Your task to perform on an android device: allow notifications from all sites in the chrome app Image 0: 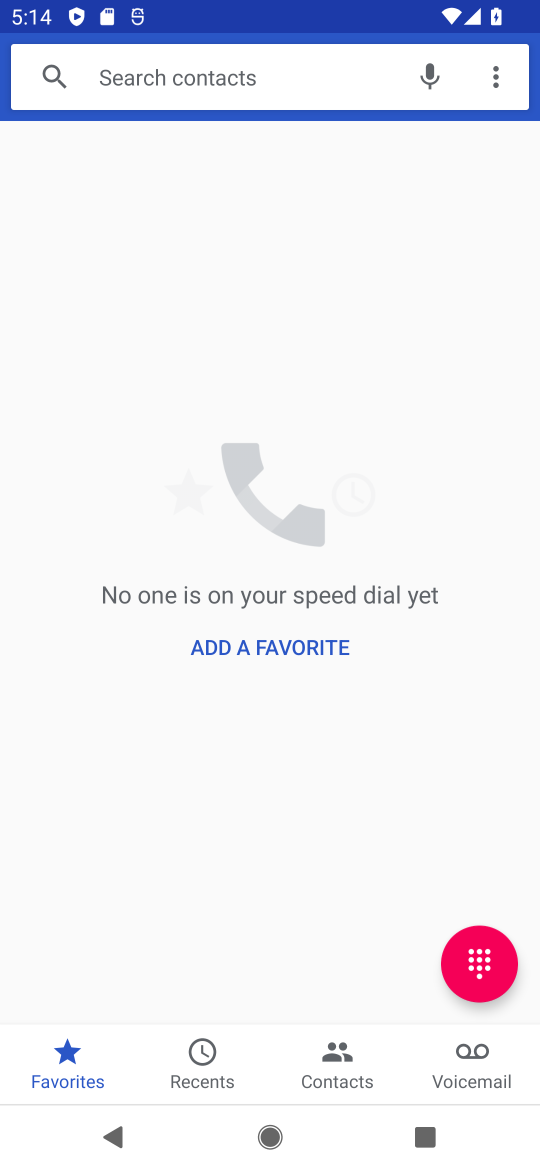
Step 0: press home button
Your task to perform on an android device: allow notifications from all sites in the chrome app Image 1: 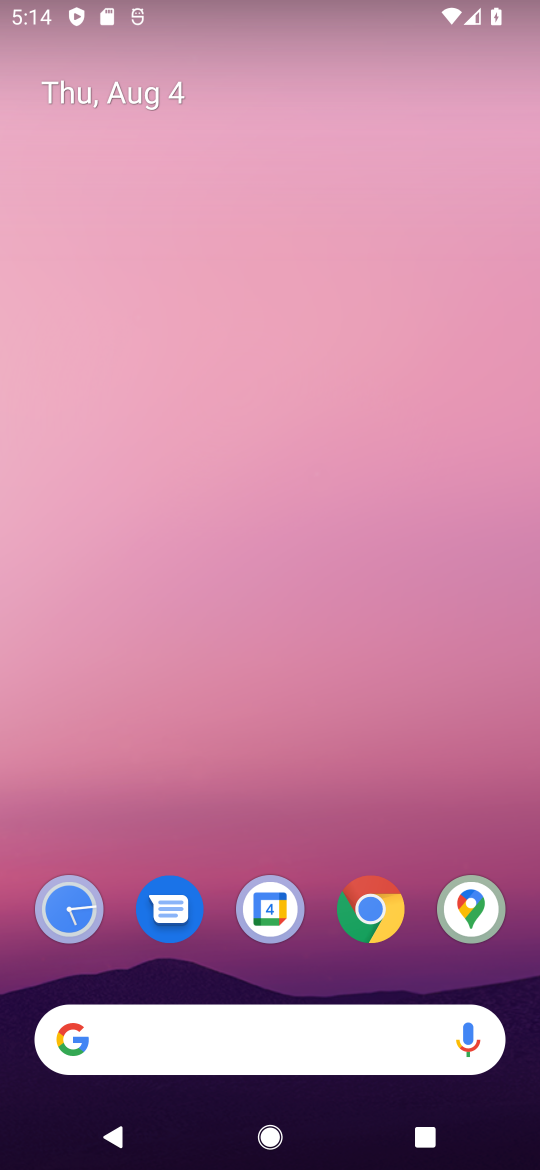
Step 1: click (367, 912)
Your task to perform on an android device: allow notifications from all sites in the chrome app Image 2: 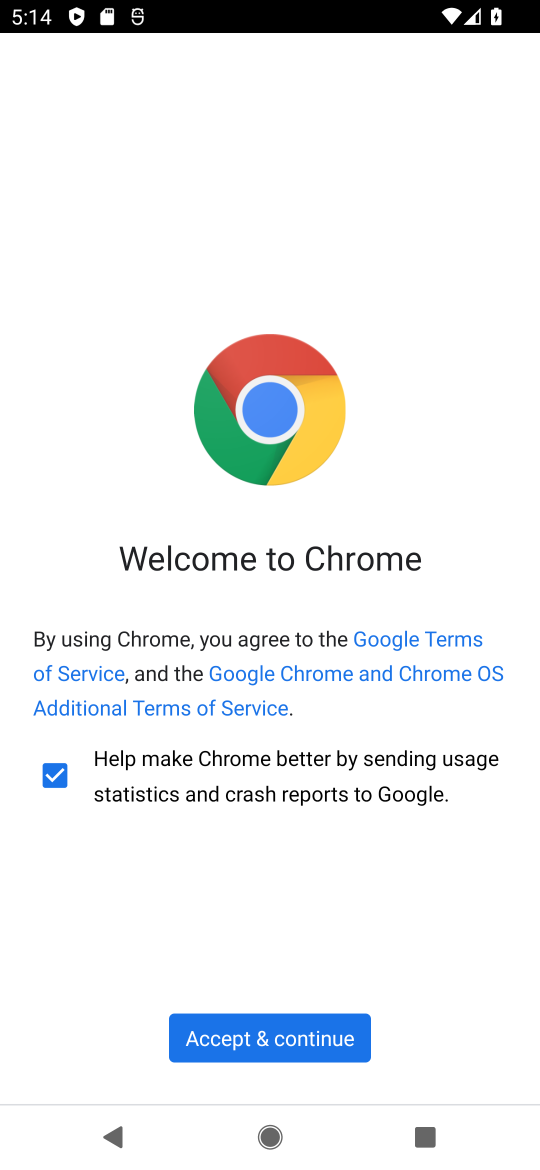
Step 2: click (285, 1034)
Your task to perform on an android device: allow notifications from all sites in the chrome app Image 3: 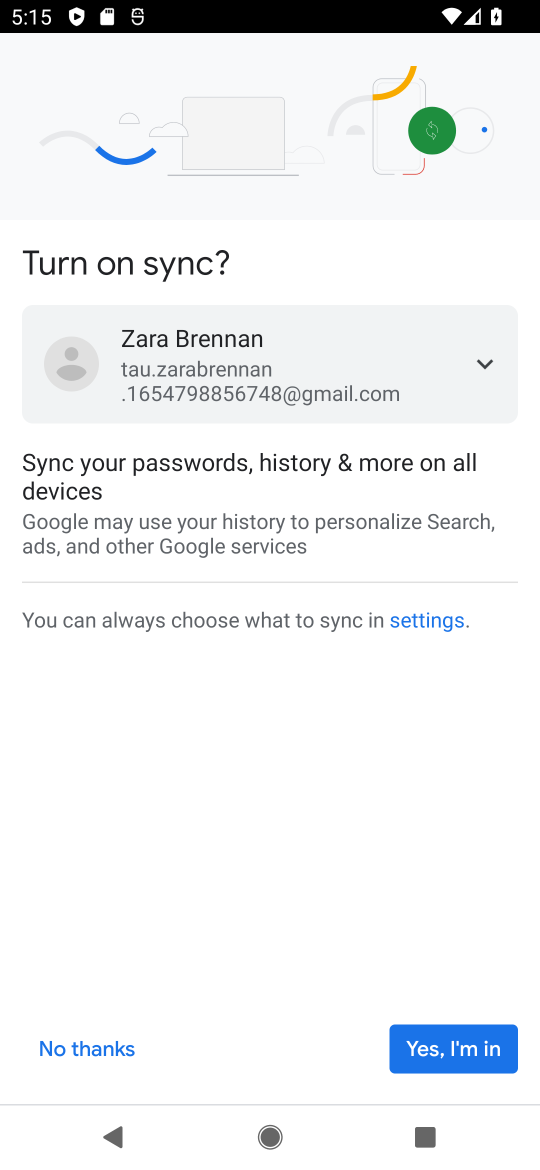
Step 3: click (442, 1044)
Your task to perform on an android device: allow notifications from all sites in the chrome app Image 4: 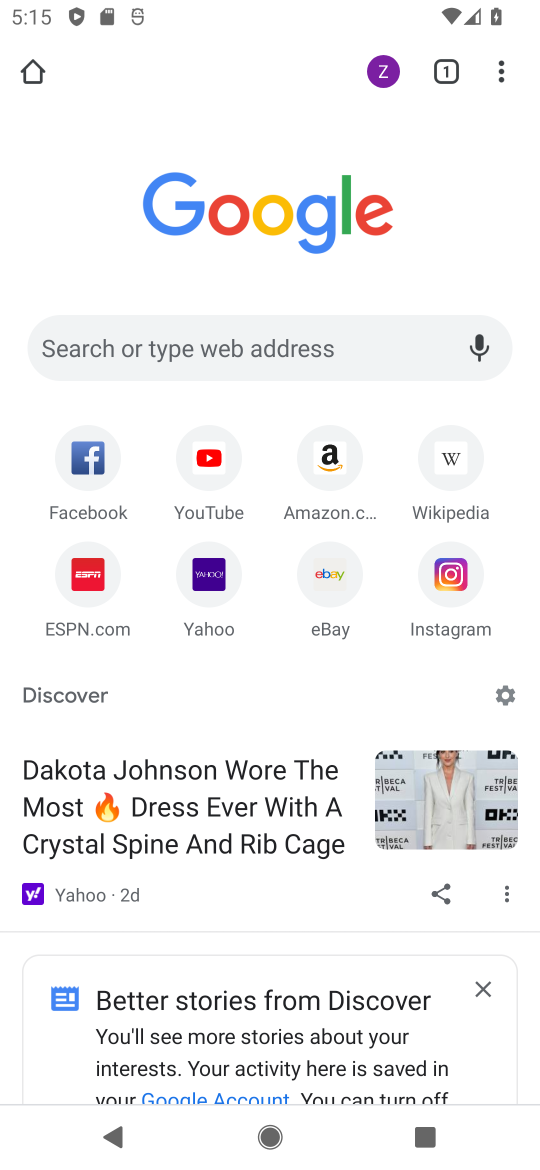
Step 4: click (499, 78)
Your task to perform on an android device: allow notifications from all sites in the chrome app Image 5: 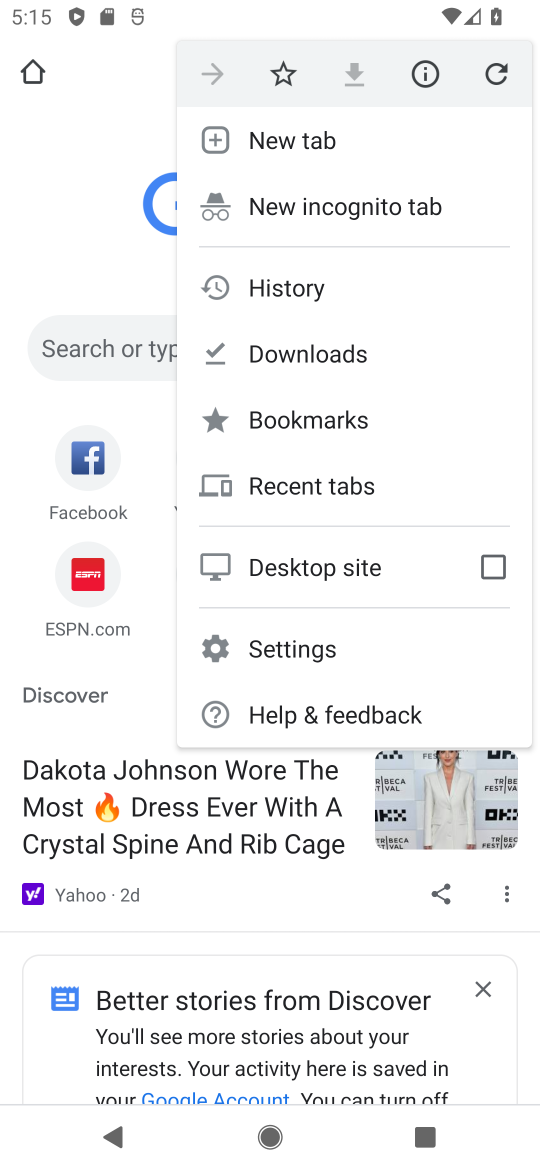
Step 5: click (272, 654)
Your task to perform on an android device: allow notifications from all sites in the chrome app Image 6: 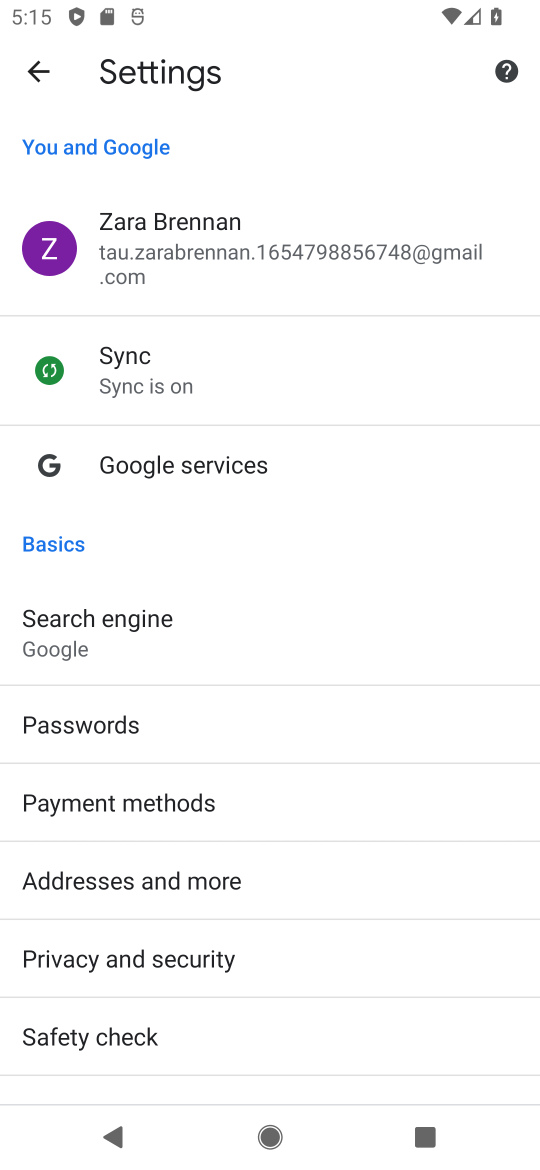
Step 6: drag from (236, 713) to (253, 558)
Your task to perform on an android device: allow notifications from all sites in the chrome app Image 7: 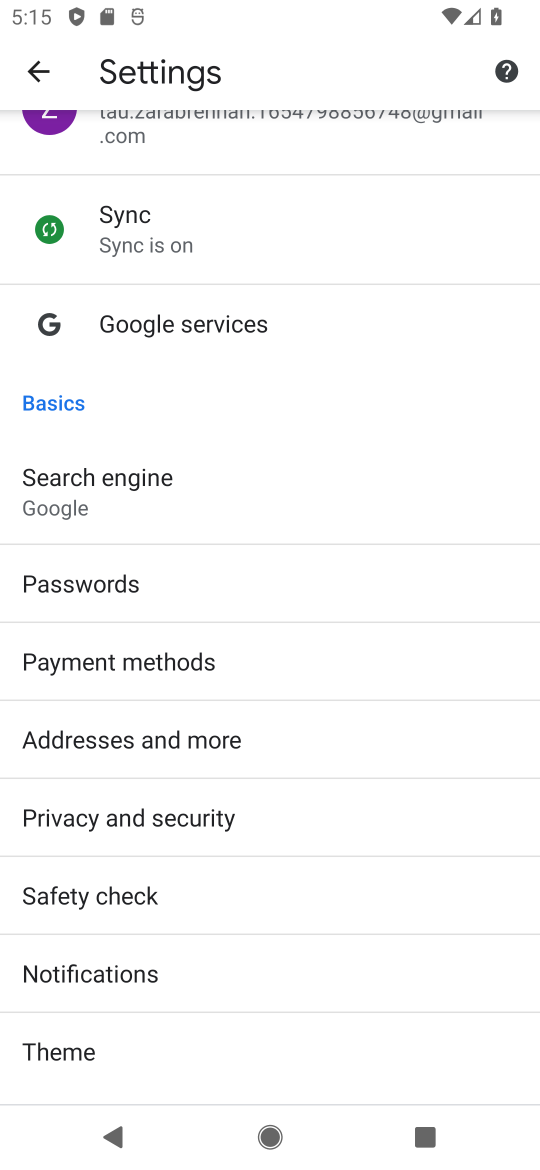
Step 7: drag from (198, 721) to (230, 564)
Your task to perform on an android device: allow notifications from all sites in the chrome app Image 8: 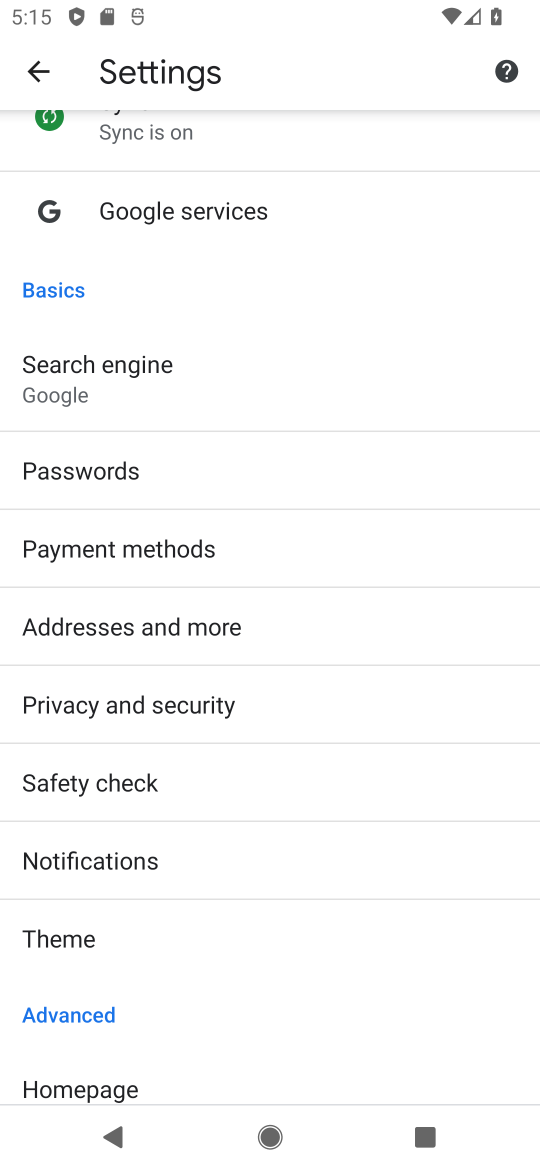
Step 8: drag from (188, 756) to (216, 597)
Your task to perform on an android device: allow notifications from all sites in the chrome app Image 9: 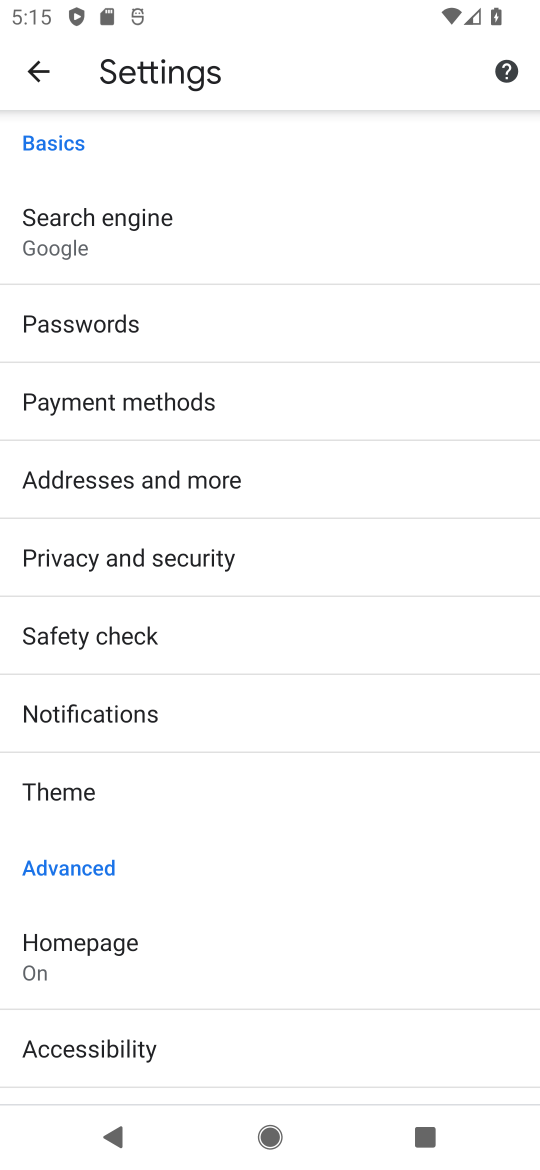
Step 9: click (105, 722)
Your task to perform on an android device: allow notifications from all sites in the chrome app Image 10: 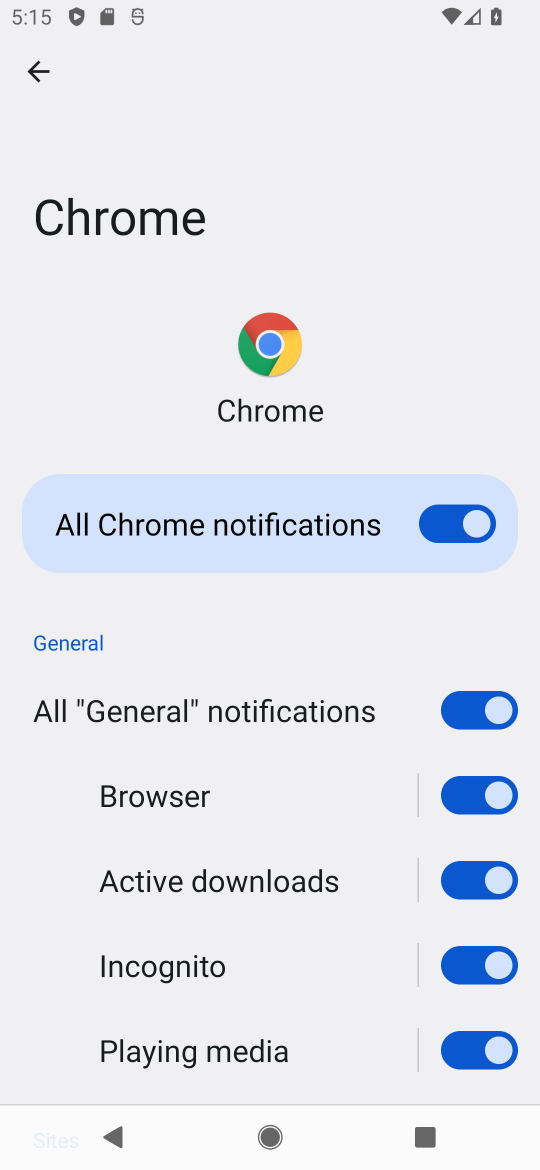
Step 10: task complete